Your task to perform on an android device: Open calendar and show me the first week of next month Image 0: 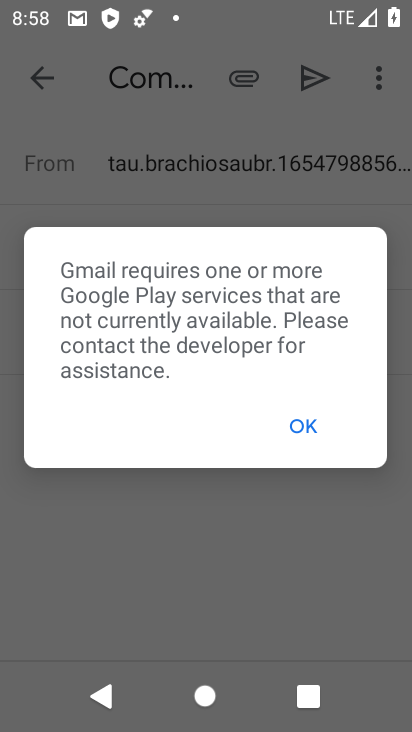
Step 0: press back button
Your task to perform on an android device: Open calendar and show me the first week of next month Image 1: 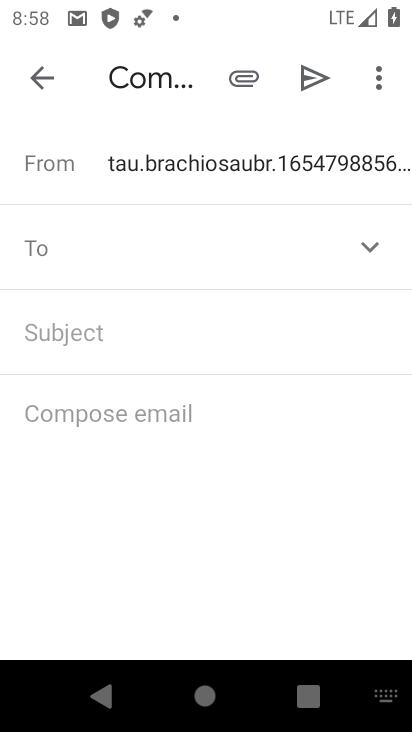
Step 1: press back button
Your task to perform on an android device: Open calendar and show me the first week of next month Image 2: 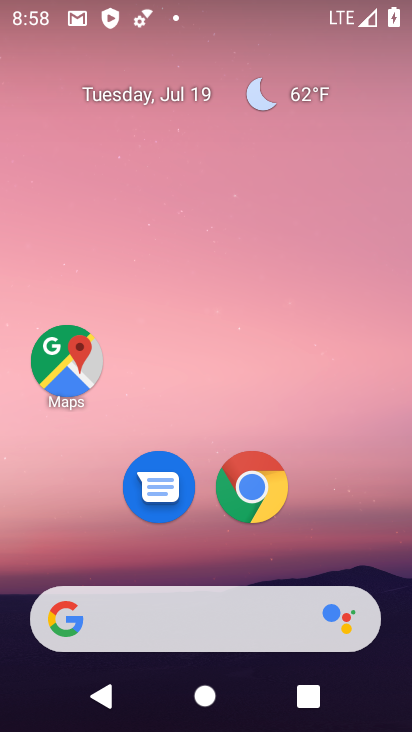
Step 2: drag from (65, 555) to (187, 24)
Your task to perform on an android device: Open calendar and show me the first week of next month Image 3: 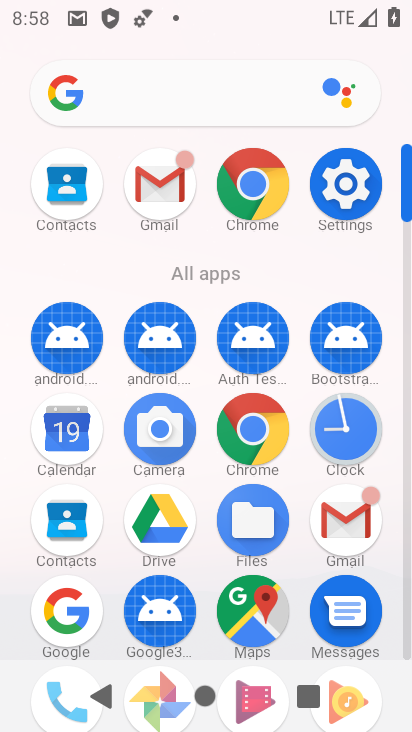
Step 3: click (85, 431)
Your task to perform on an android device: Open calendar and show me the first week of next month Image 4: 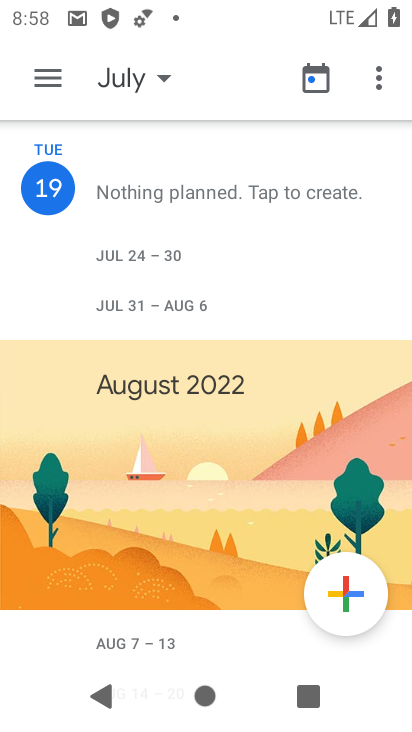
Step 4: click (161, 84)
Your task to perform on an android device: Open calendar and show me the first week of next month Image 5: 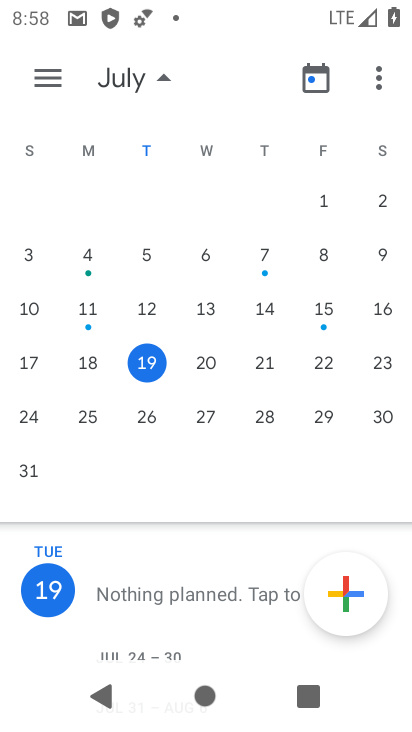
Step 5: drag from (382, 298) to (0, 313)
Your task to perform on an android device: Open calendar and show me the first week of next month Image 6: 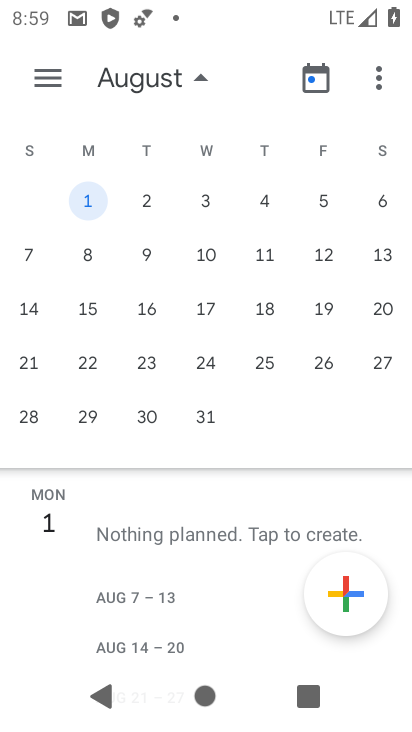
Step 6: click (89, 202)
Your task to perform on an android device: Open calendar and show me the first week of next month Image 7: 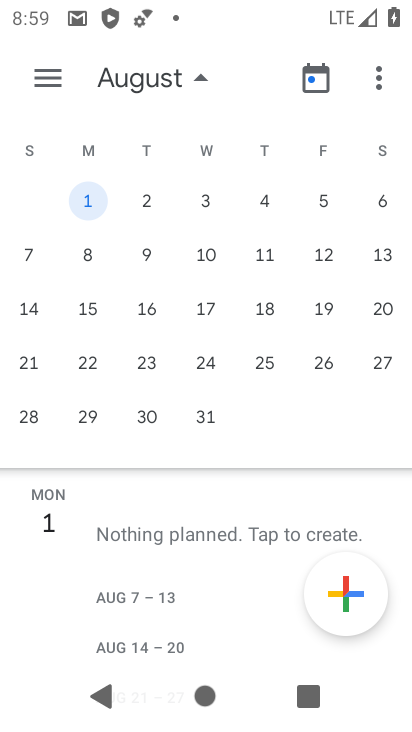
Step 7: task complete